Your task to perform on an android device: Is it going to rain this weekend? Image 0: 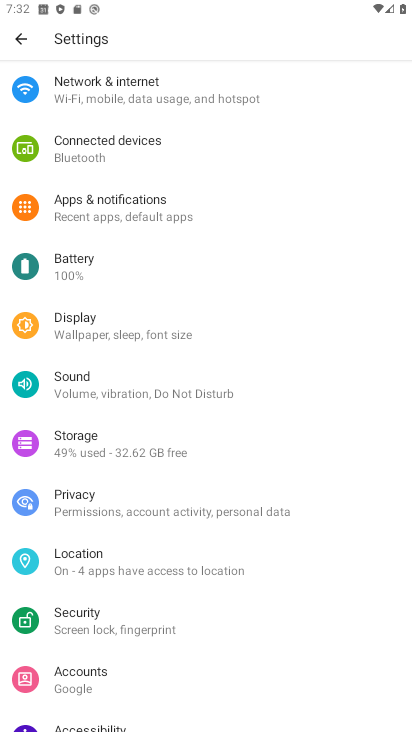
Step 0: press home button
Your task to perform on an android device: Is it going to rain this weekend? Image 1: 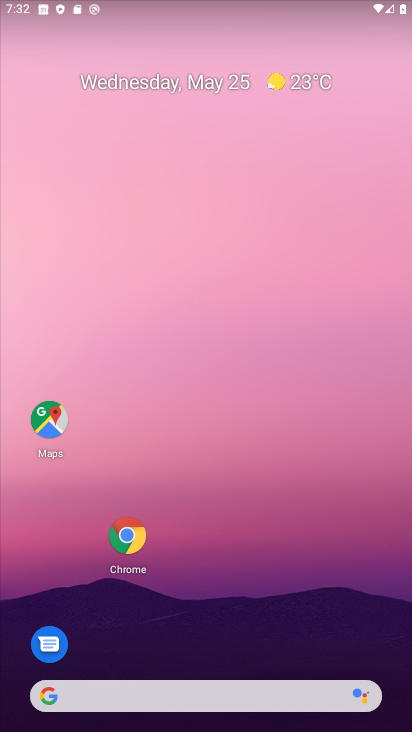
Step 1: press home button
Your task to perform on an android device: Is it going to rain this weekend? Image 2: 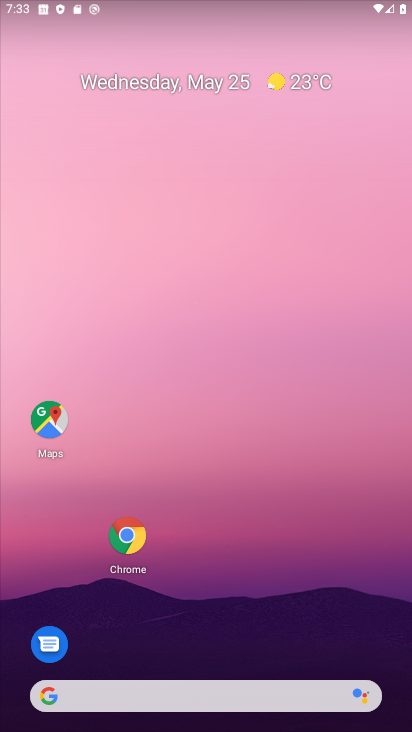
Step 2: click (289, 78)
Your task to perform on an android device: Is it going to rain this weekend? Image 3: 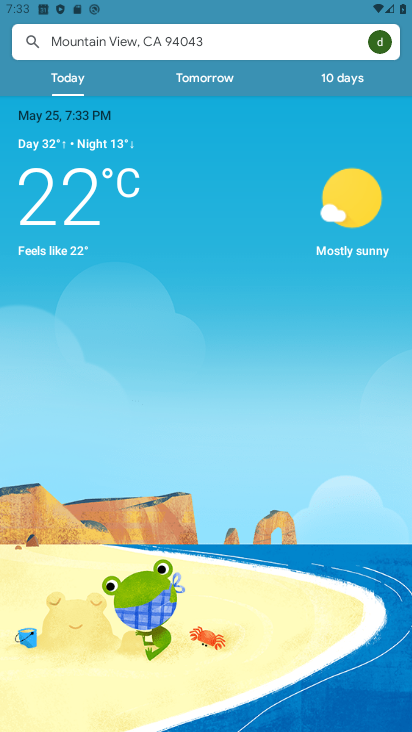
Step 3: click (326, 82)
Your task to perform on an android device: Is it going to rain this weekend? Image 4: 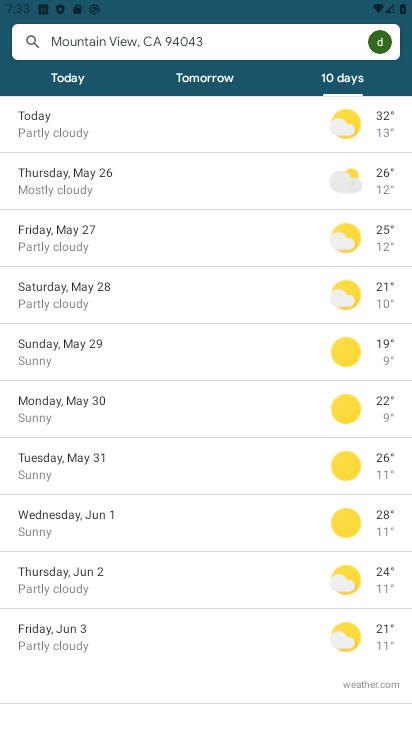
Step 4: task complete